Your task to perform on an android device: turn on bluetooth scan Image 0: 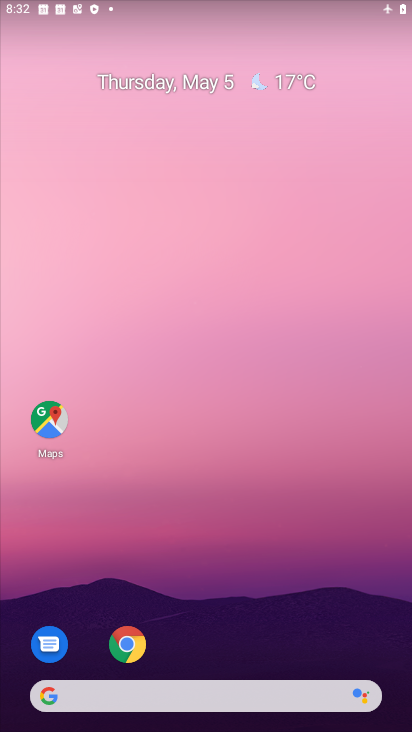
Step 0: press home button
Your task to perform on an android device: turn on bluetooth scan Image 1: 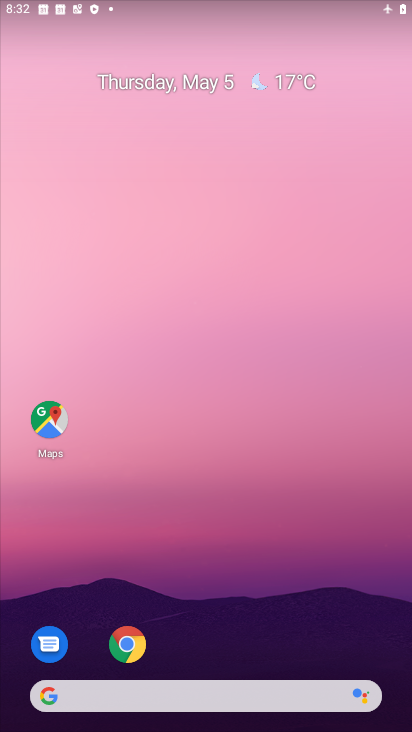
Step 1: press home button
Your task to perform on an android device: turn on bluetooth scan Image 2: 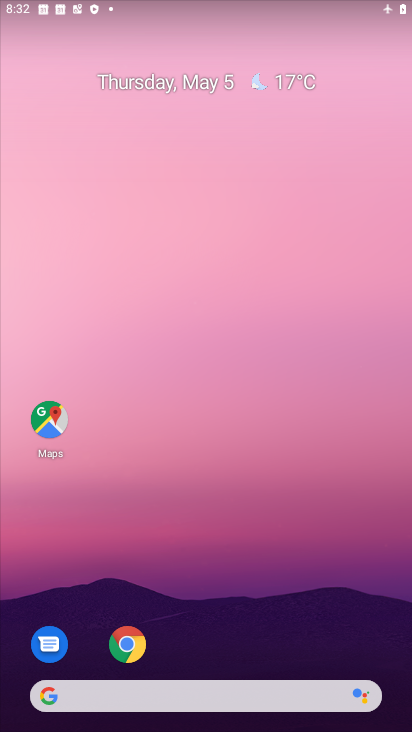
Step 2: drag from (173, 665) to (202, 211)
Your task to perform on an android device: turn on bluetooth scan Image 3: 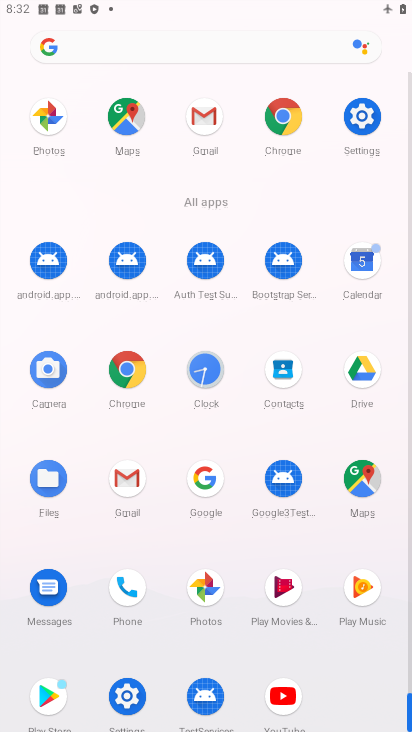
Step 3: click (362, 104)
Your task to perform on an android device: turn on bluetooth scan Image 4: 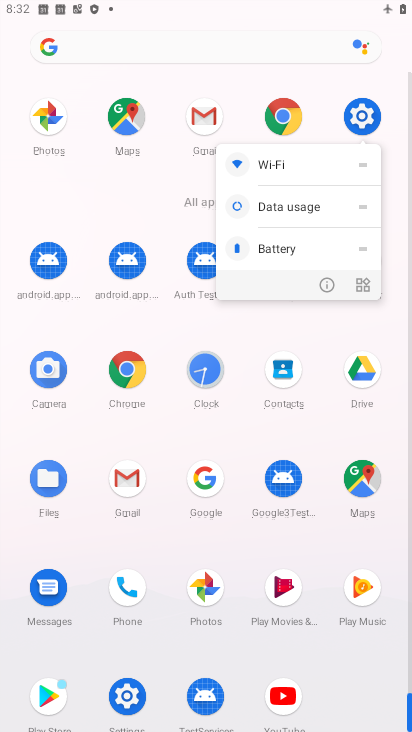
Step 4: click (327, 275)
Your task to perform on an android device: turn on bluetooth scan Image 5: 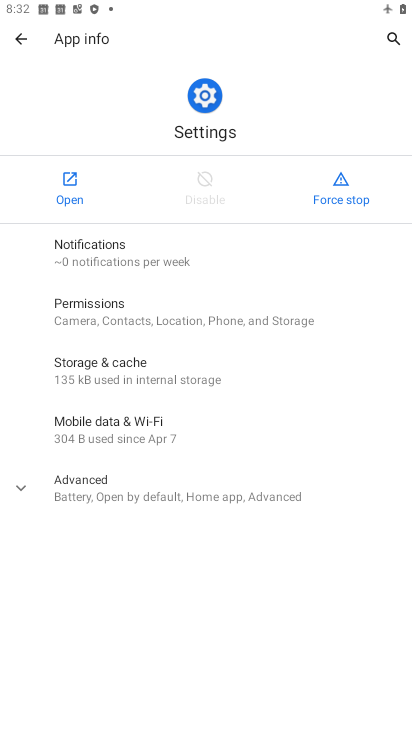
Step 5: click (71, 178)
Your task to perform on an android device: turn on bluetooth scan Image 6: 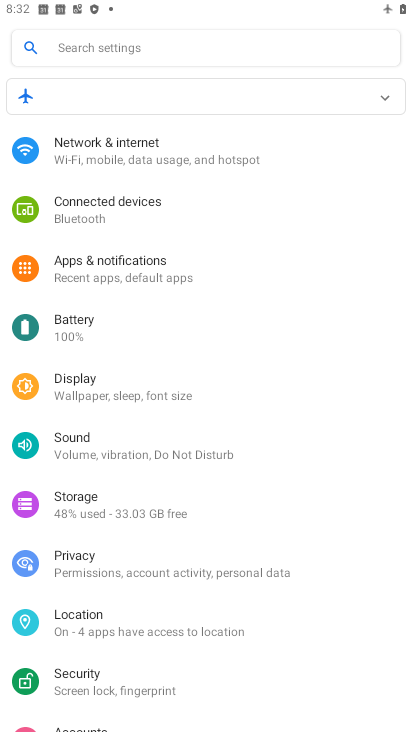
Step 6: click (271, 44)
Your task to perform on an android device: turn on bluetooth scan Image 7: 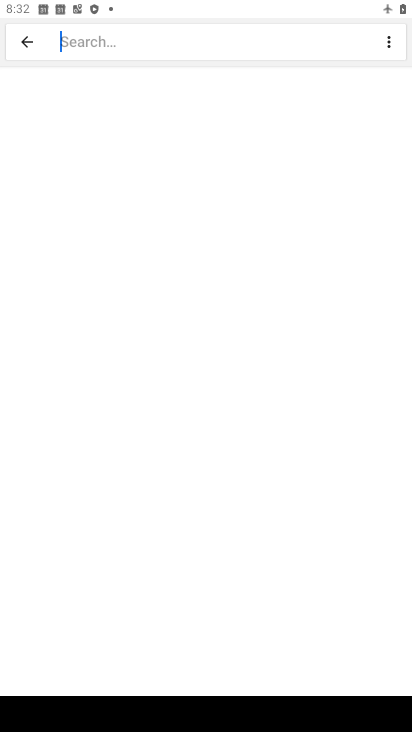
Step 7: type "bluetooth"
Your task to perform on an android device: turn on bluetooth scan Image 8: 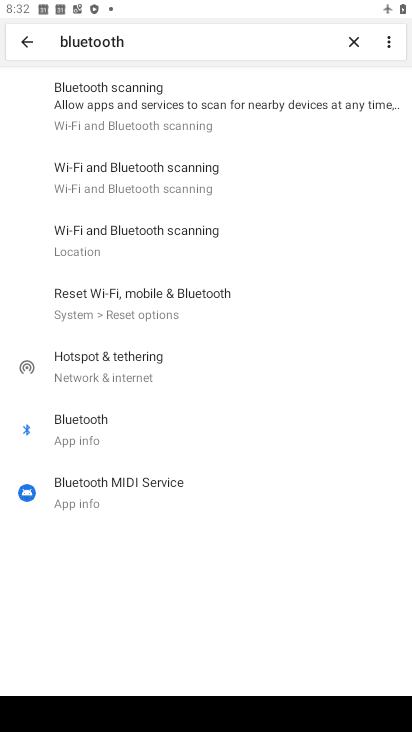
Step 8: click (159, 110)
Your task to perform on an android device: turn on bluetooth scan Image 9: 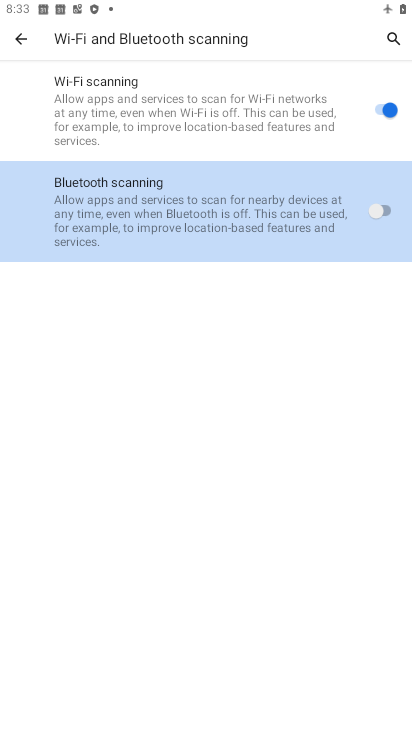
Step 9: click (355, 202)
Your task to perform on an android device: turn on bluetooth scan Image 10: 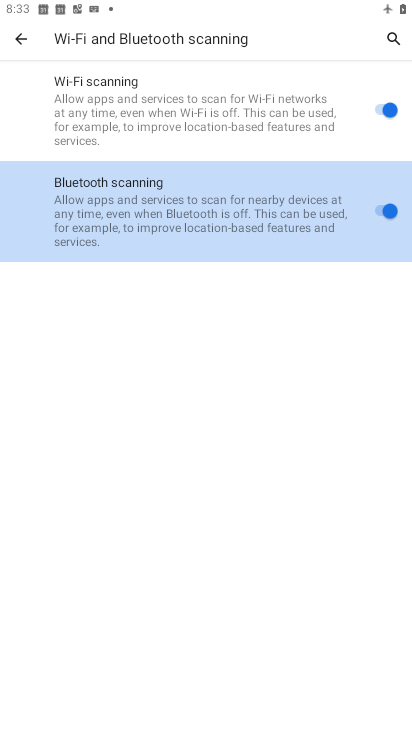
Step 10: task complete